Your task to perform on an android device: turn on sleep mode Image 0: 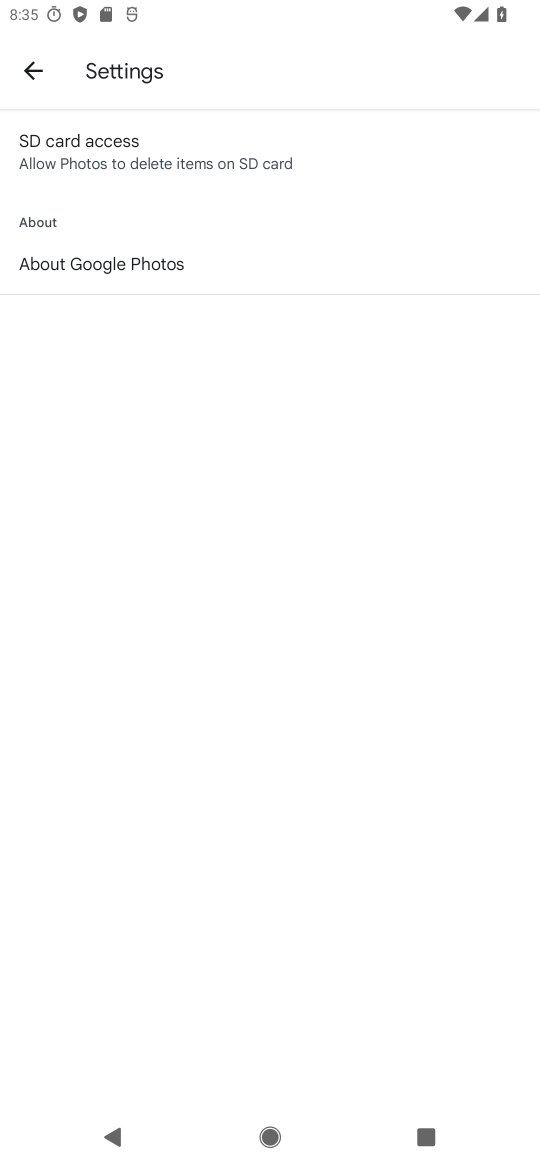
Step 0: press home button
Your task to perform on an android device: turn on sleep mode Image 1: 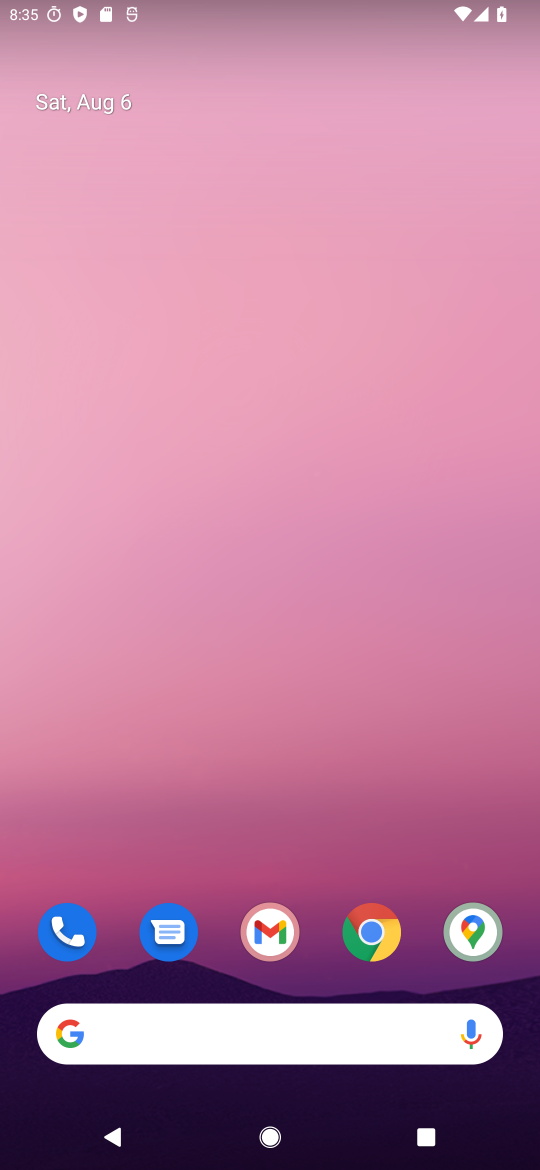
Step 1: drag from (310, 1027) to (462, 260)
Your task to perform on an android device: turn on sleep mode Image 2: 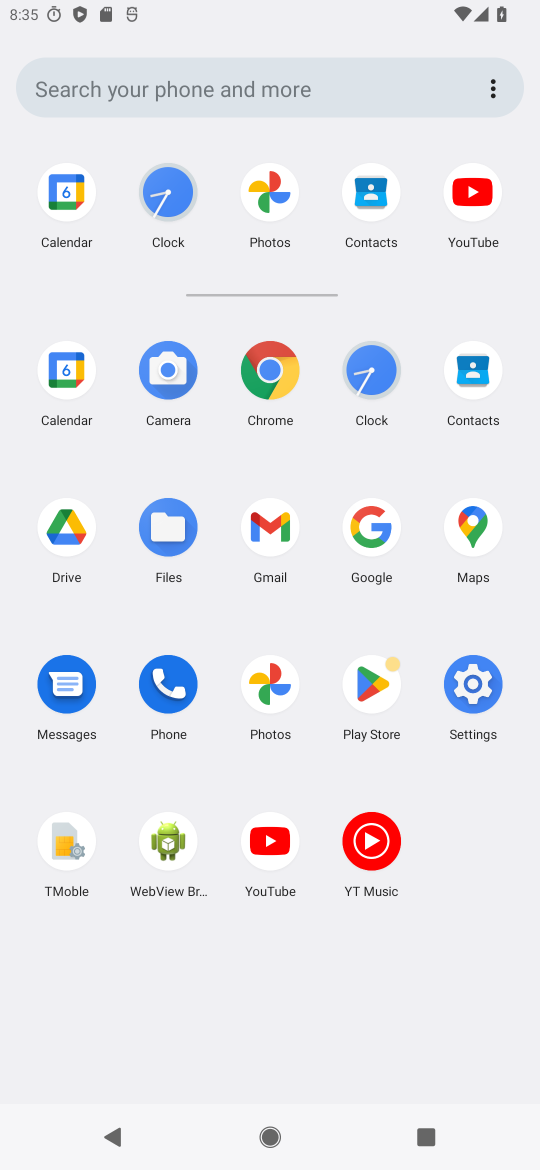
Step 2: click (471, 678)
Your task to perform on an android device: turn on sleep mode Image 3: 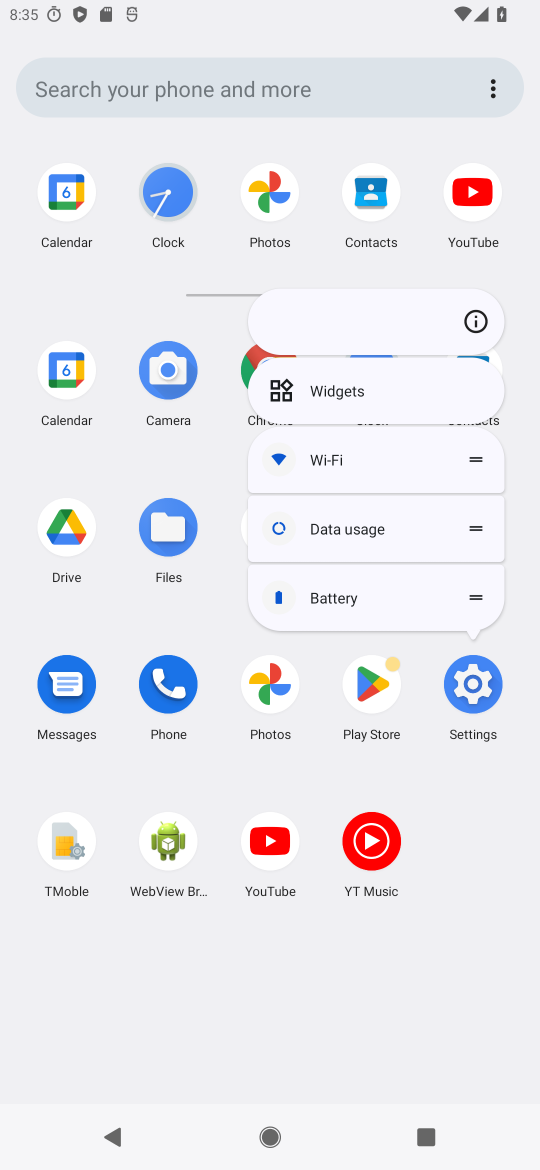
Step 3: click (461, 681)
Your task to perform on an android device: turn on sleep mode Image 4: 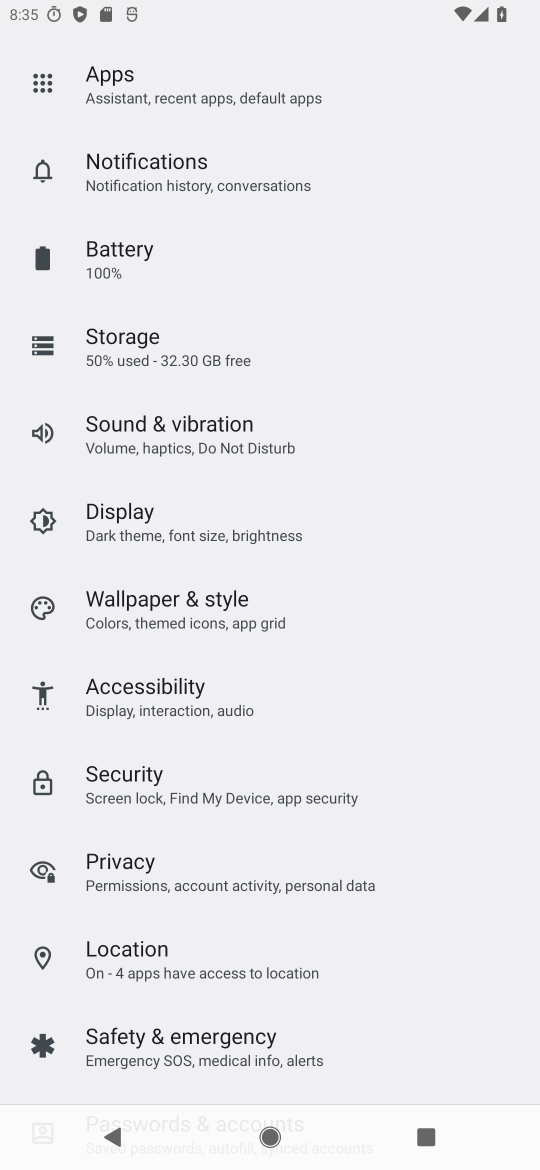
Step 4: click (230, 537)
Your task to perform on an android device: turn on sleep mode Image 5: 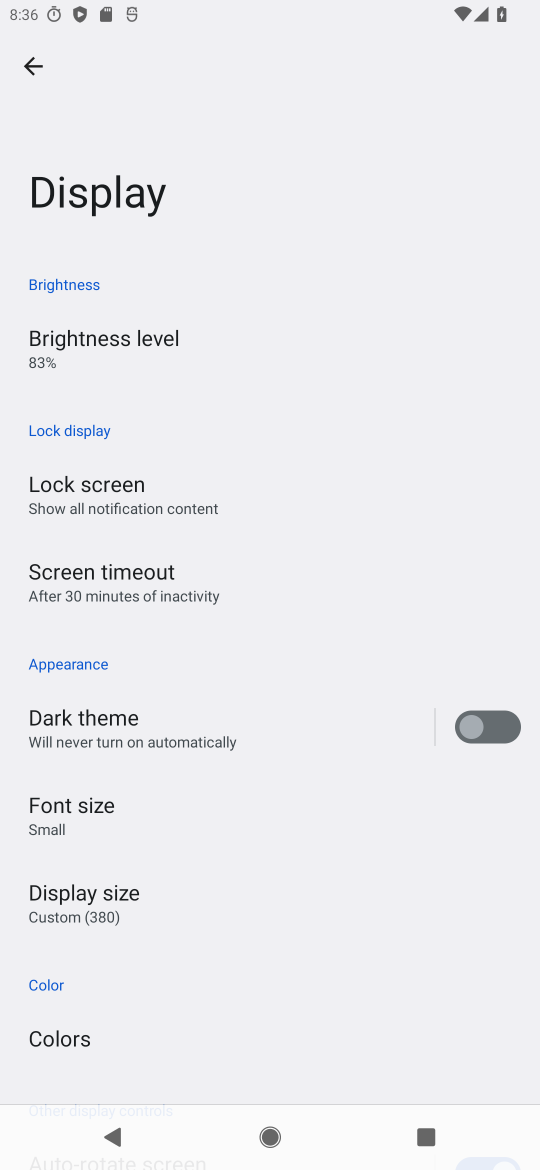
Step 5: task complete